Your task to perform on an android device: see tabs open on other devices in the chrome app Image 0: 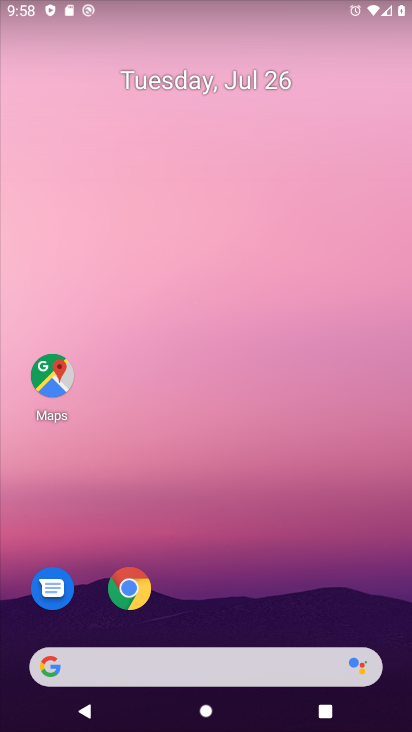
Step 0: click (129, 589)
Your task to perform on an android device: see tabs open on other devices in the chrome app Image 1: 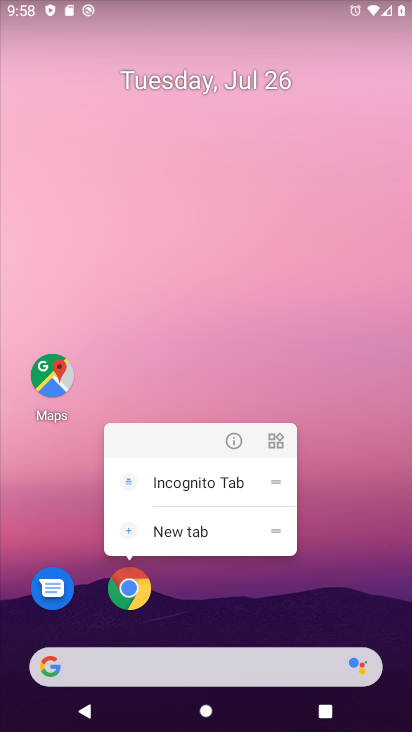
Step 1: click (129, 589)
Your task to perform on an android device: see tabs open on other devices in the chrome app Image 2: 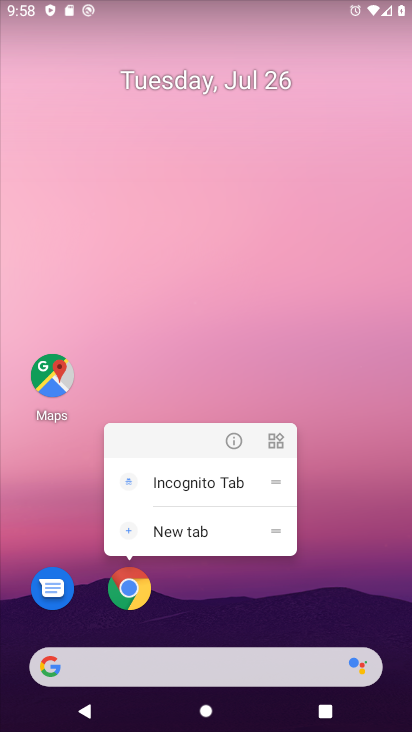
Step 2: click (135, 598)
Your task to perform on an android device: see tabs open on other devices in the chrome app Image 3: 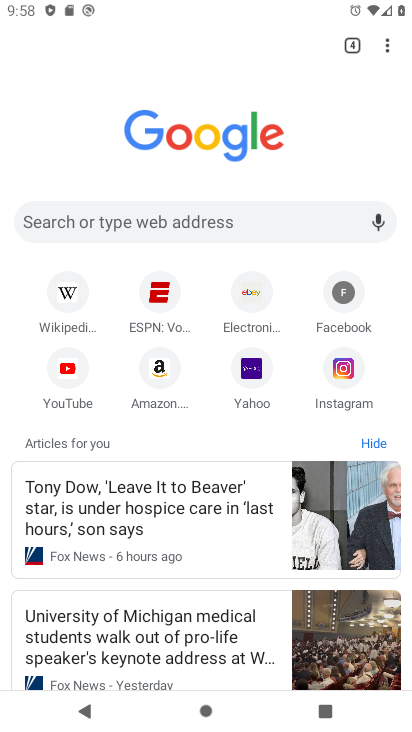
Step 3: task complete